Your task to perform on an android device: change the clock display to digital Image 0: 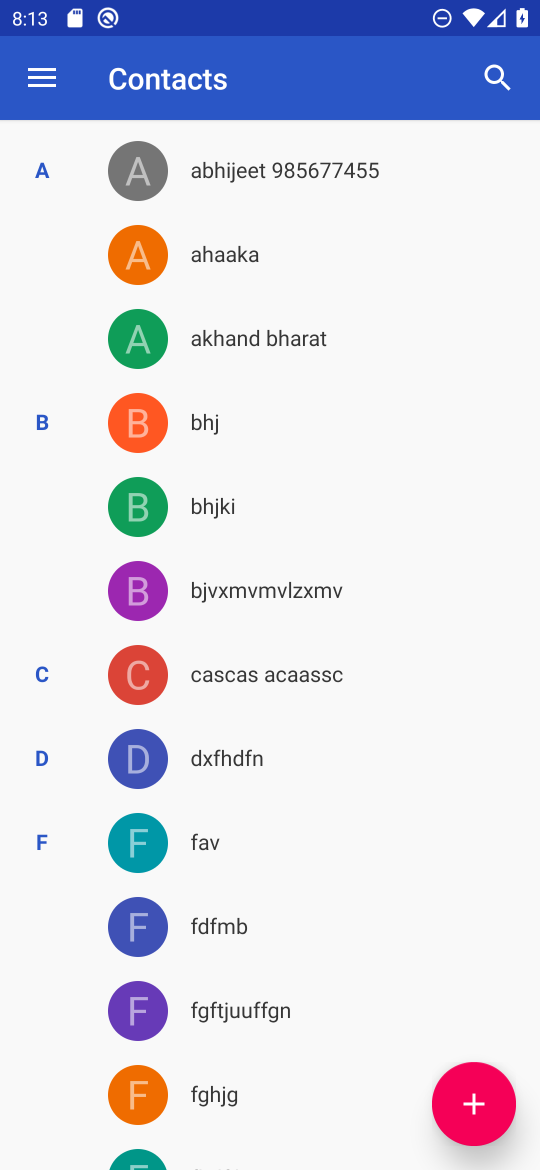
Step 0: press home button
Your task to perform on an android device: change the clock display to digital Image 1: 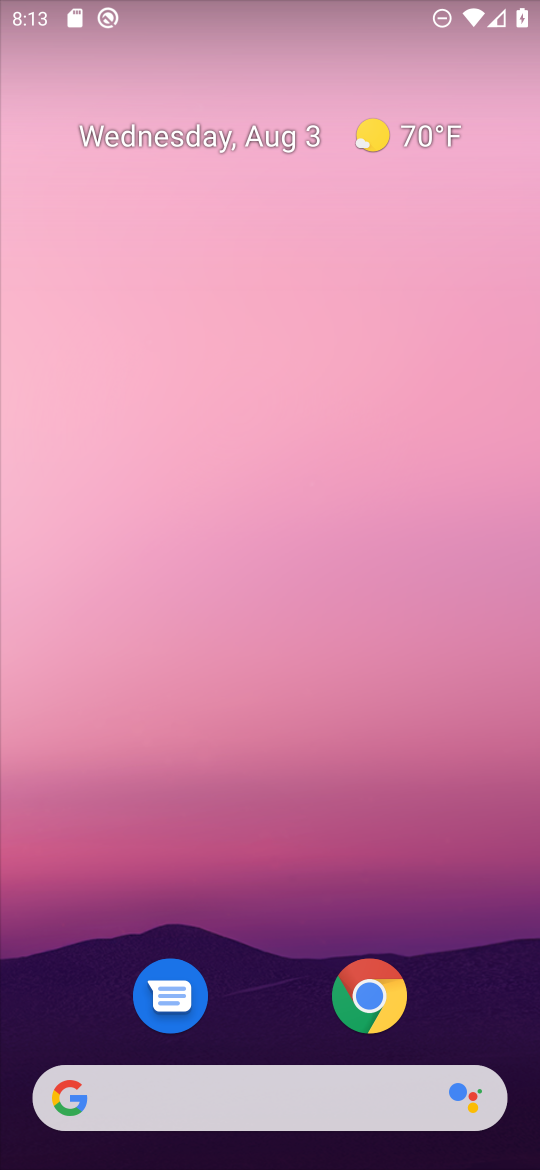
Step 1: drag from (287, 836) to (339, 0)
Your task to perform on an android device: change the clock display to digital Image 2: 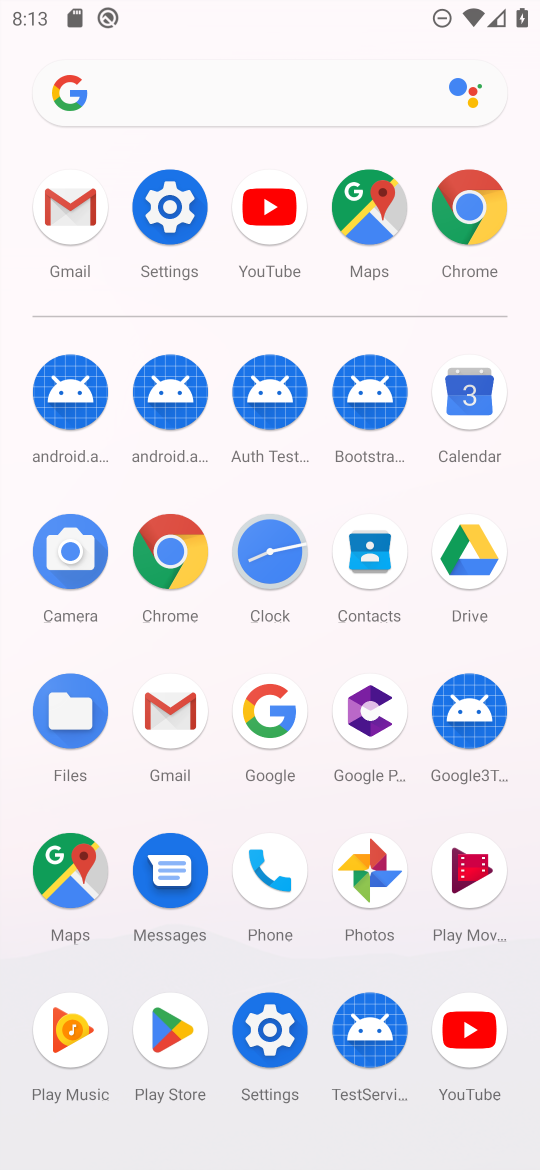
Step 2: click (286, 567)
Your task to perform on an android device: change the clock display to digital Image 3: 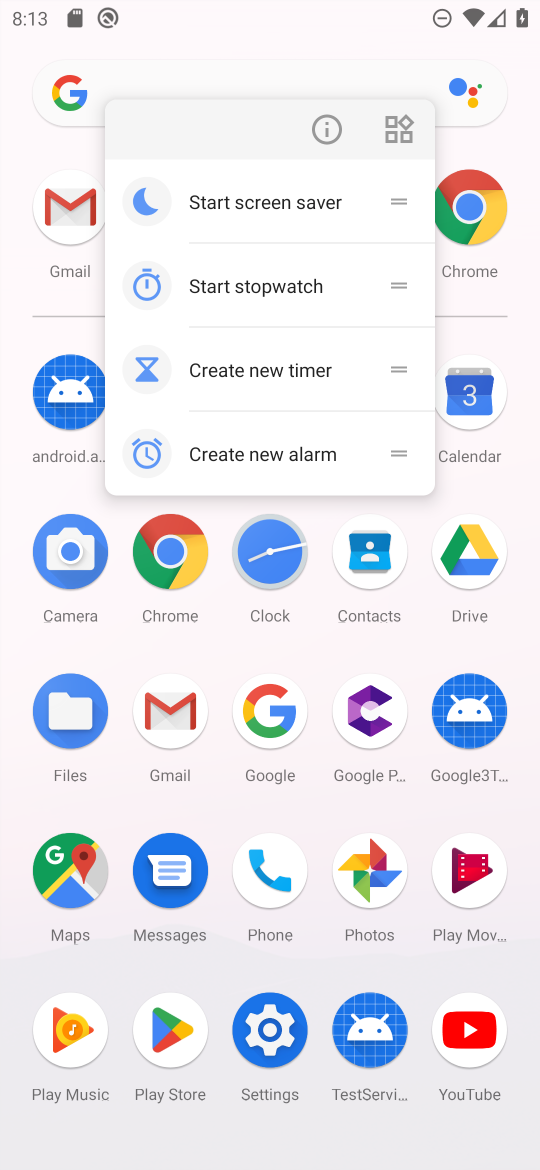
Step 3: click (286, 567)
Your task to perform on an android device: change the clock display to digital Image 4: 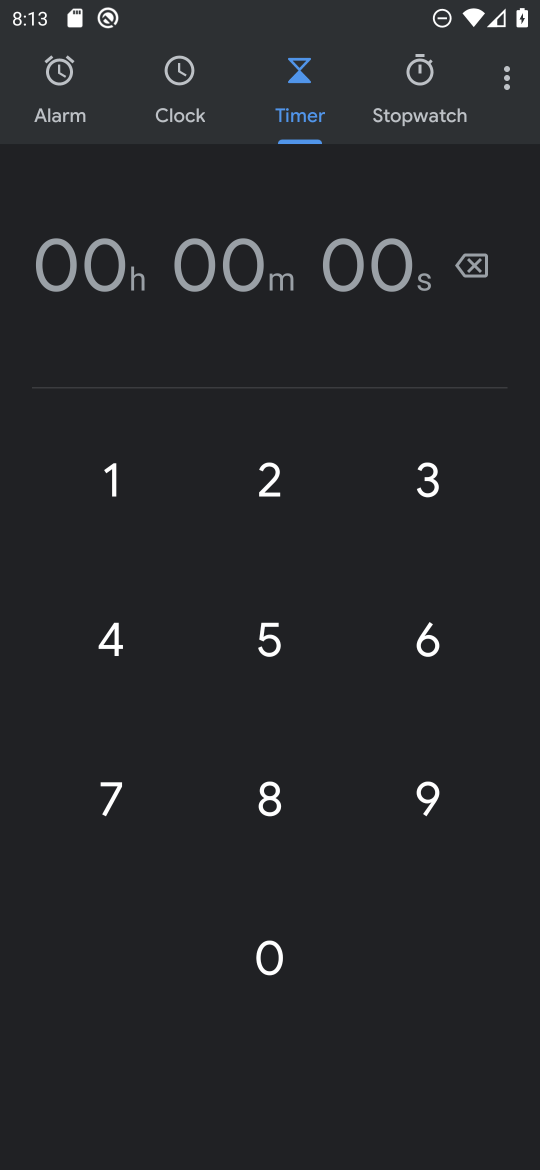
Step 4: click (170, 59)
Your task to perform on an android device: change the clock display to digital Image 5: 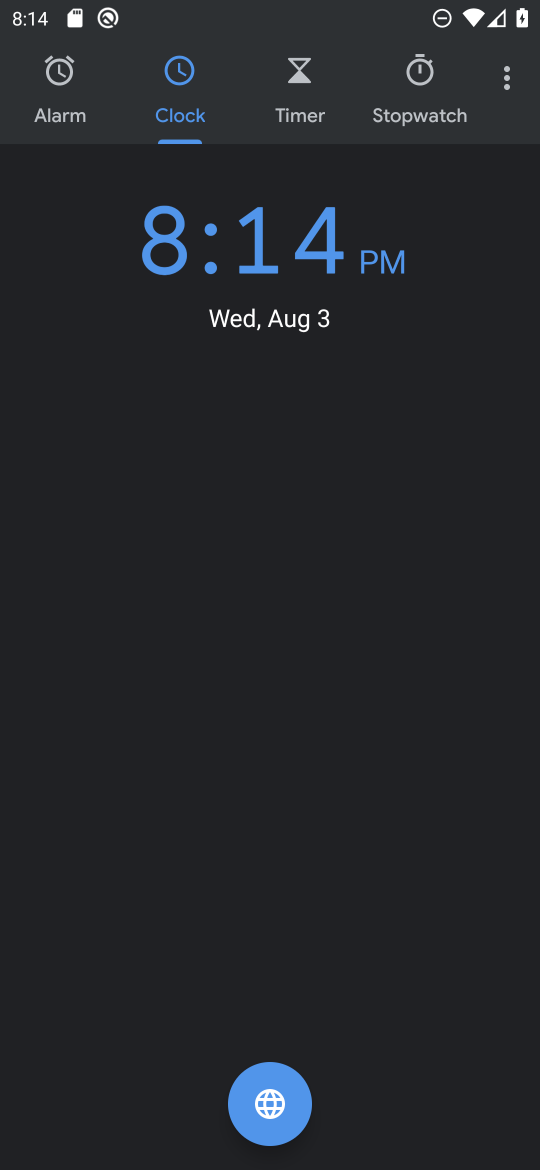
Step 5: task complete